Your task to perform on an android device: search for starred emails in the gmail app Image 0: 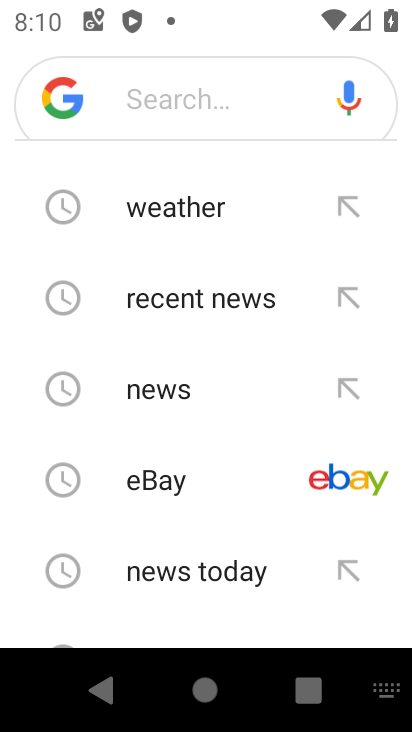
Step 0: press home button
Your task to perform on an android device: search for starred emails in the gmail app Image 1: 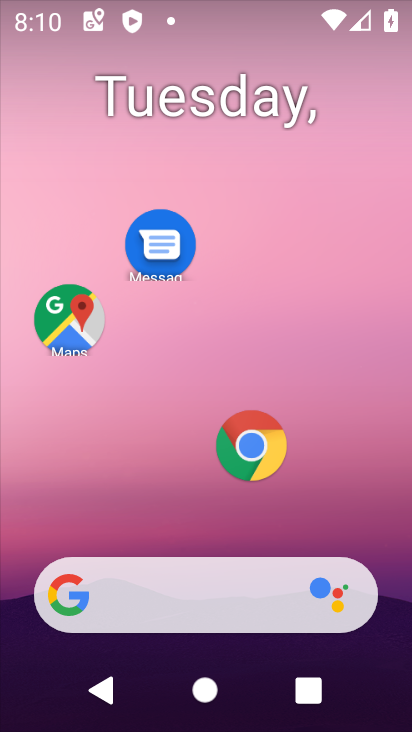
Step 1: drag from (216, 475) to (216, 293)
Your task to perform on an android device: search for starred emails in the gmail app Image 2: 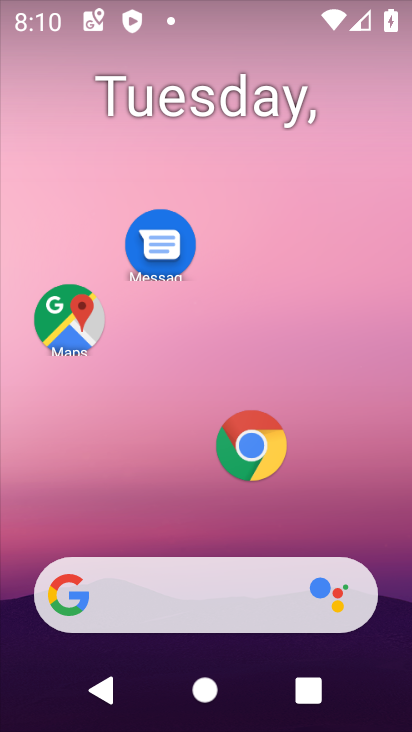
Step 2: drag from (157, 556) to (193, 299)
Your task to perform on an android device: search for starred emails in the gmail app Image 3: 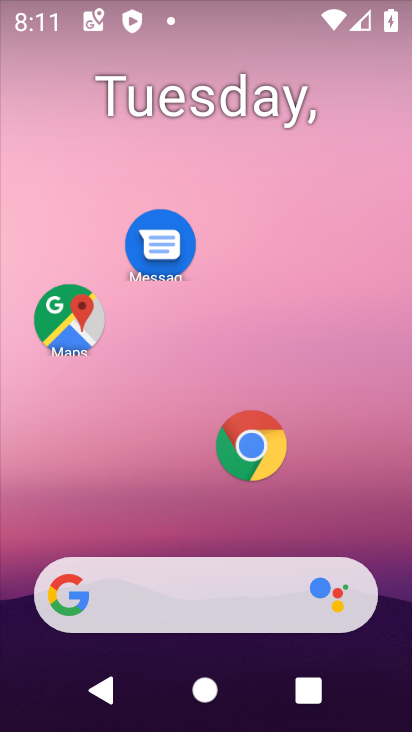
Step 3: drag from (145, 558) to (149, 184)
Your task to perform on an android device: search for starred emails in the gmail app Image 4: 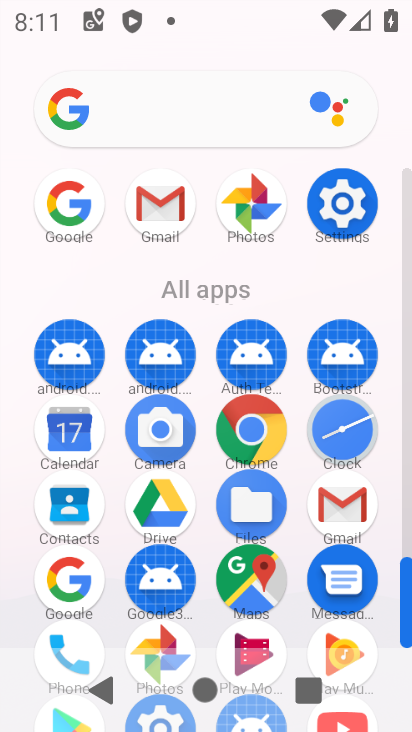
Step 4: click (147, 202)
Your task to perform on an android device: search for starred emails in the gmail app Image 5: 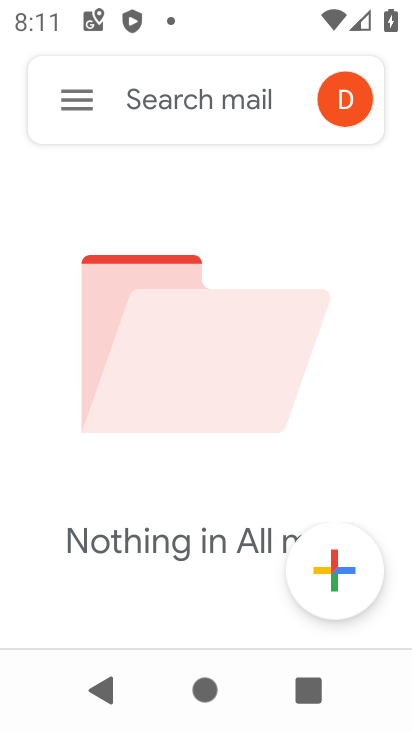
Step 5: click (69, 108)
Your task to perform on an android device: search for starred emails in the gmail app Image 6: 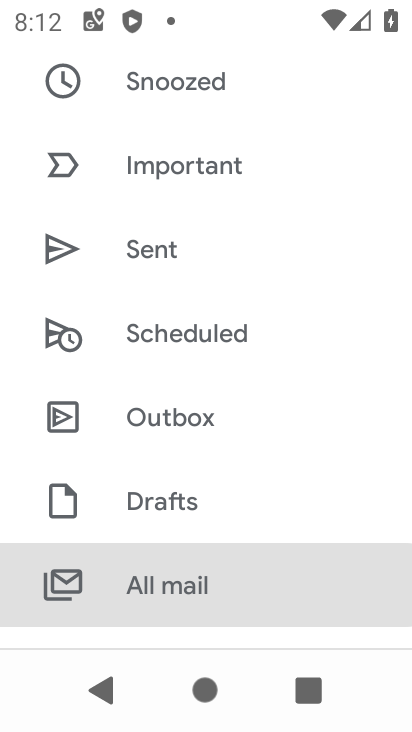
Step 6: drag from (185, 76) to (197, 411)
Your task to perform on an android device: search for starred emails in the gmail app Image 7: 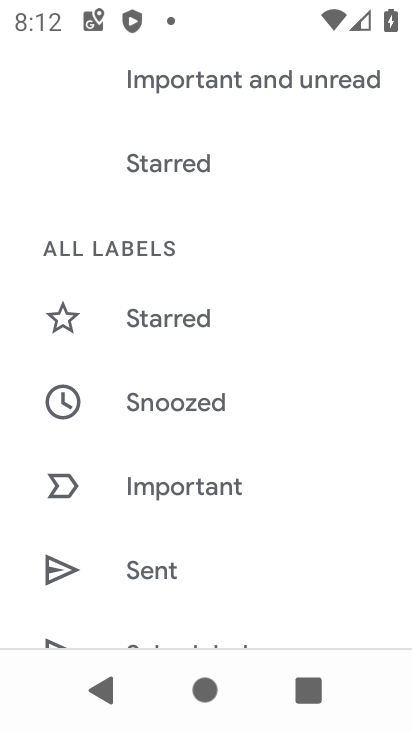
Step 7: click (202, 157)
Your task to perform on an android device: search for starred emails in the gmail app Image 8: 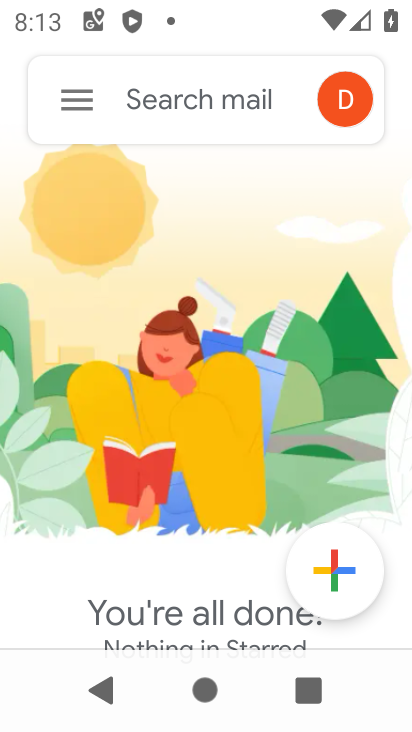
Step 8: task complete